Your task to perform on an android device: Open the web browser Image 0: 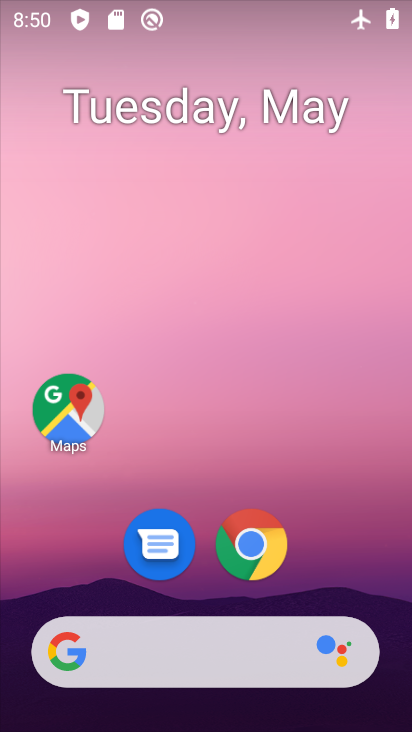
Step 0: drag from (347, 578) to (300, 103)
Your task to perform on an android device: Open the web browser Image 1: 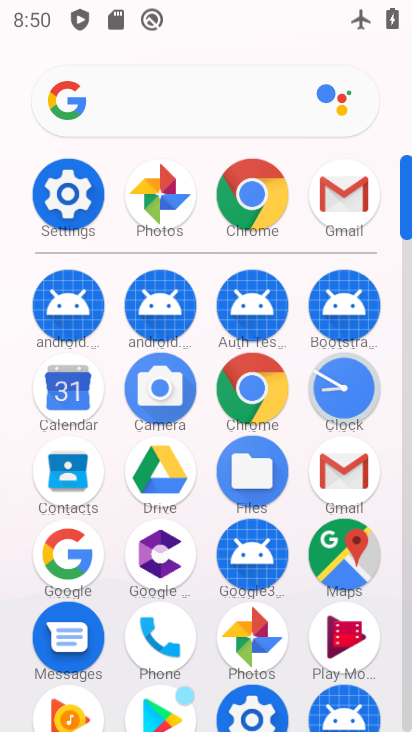
Step 1: click (262, 381)
Your task to perform on an android device: Open the web browser Image 2: 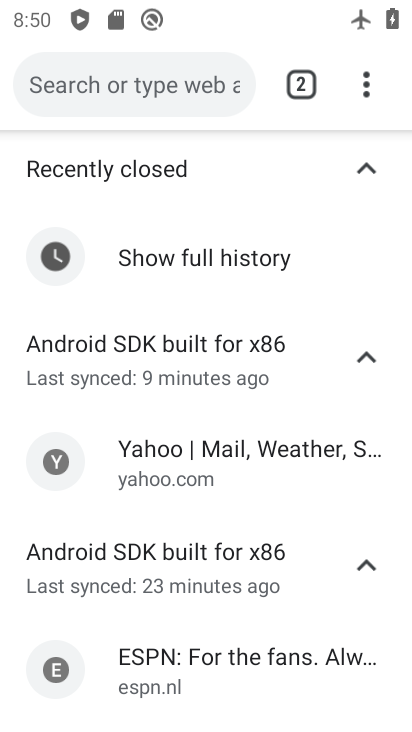
Step 2: task complete